Your task to perform on an android device: turn on sleep mode Image 0: 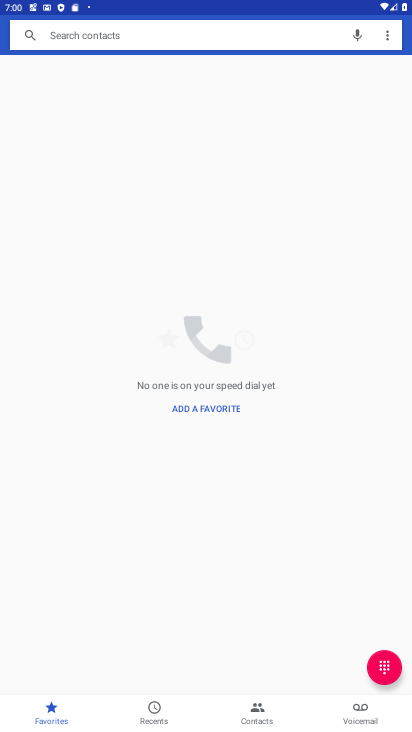
Step 0: press home button
Your task to perform on an android device: turn on sleep mode Image 1: 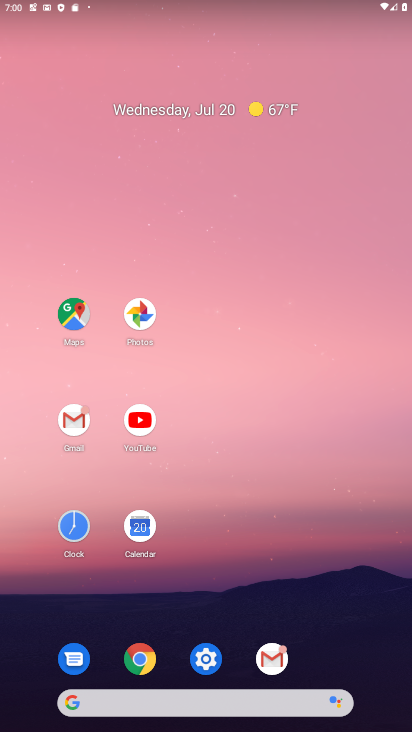
Step 1: click (207, 660)
Your task to perform on an android device: turn on sleep mode Image 2: 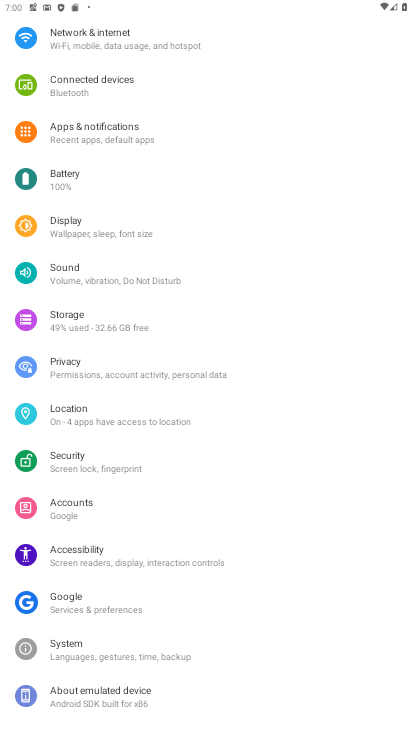
Step 2: click (207, 660)
Your task to perform on an android device: turn on sleep mode Image 3: 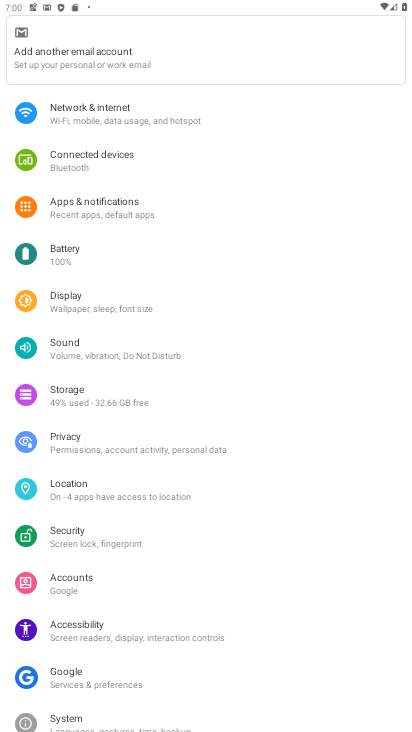
Step 3: click (70, 295)
Your task to perform on an android device: turn on sleep mode Image 4: 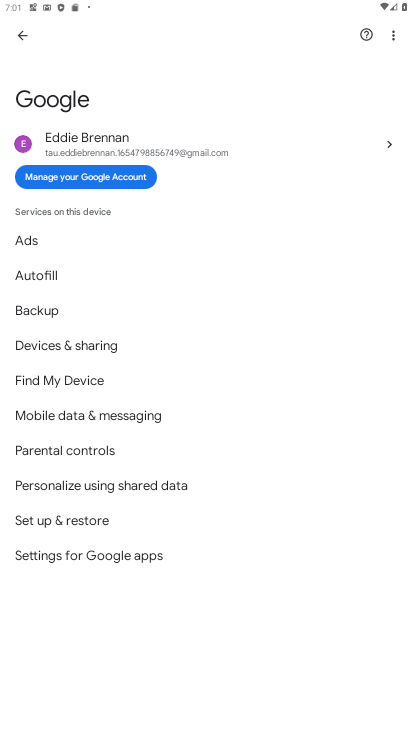
Step 4: click (19, 37)
Your task to perform on an android device: turn on sleep mode Image 5: 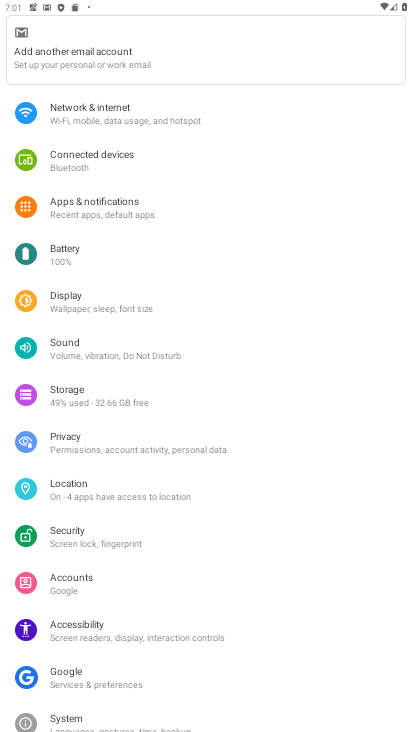
Step 5: click (73, 295)
Your task to perform on an android device: turn on sleep mode Image 6: 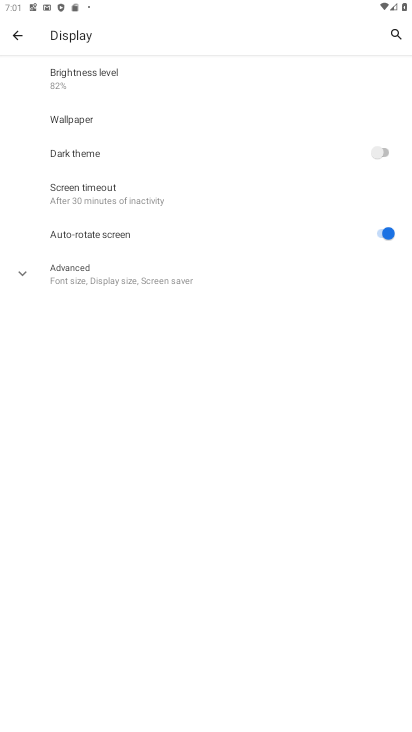
Step 6: task complete